Your task to perform on an android device: uninstall "Google Calendar" Image 0: 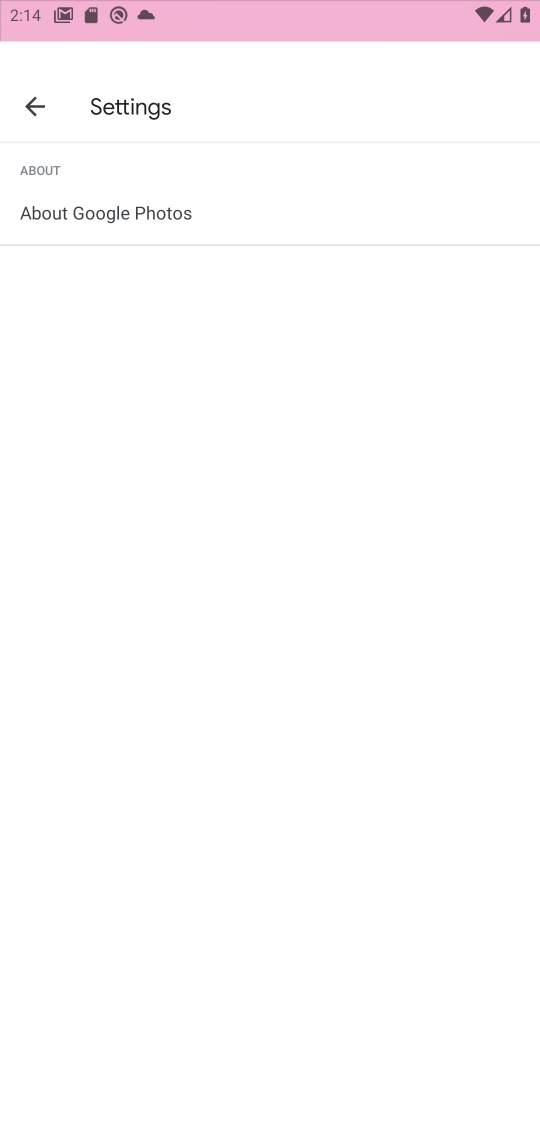
Step 0: press home button
Your task to perform on an android device: uninstall "Google Calendar" Image 1: 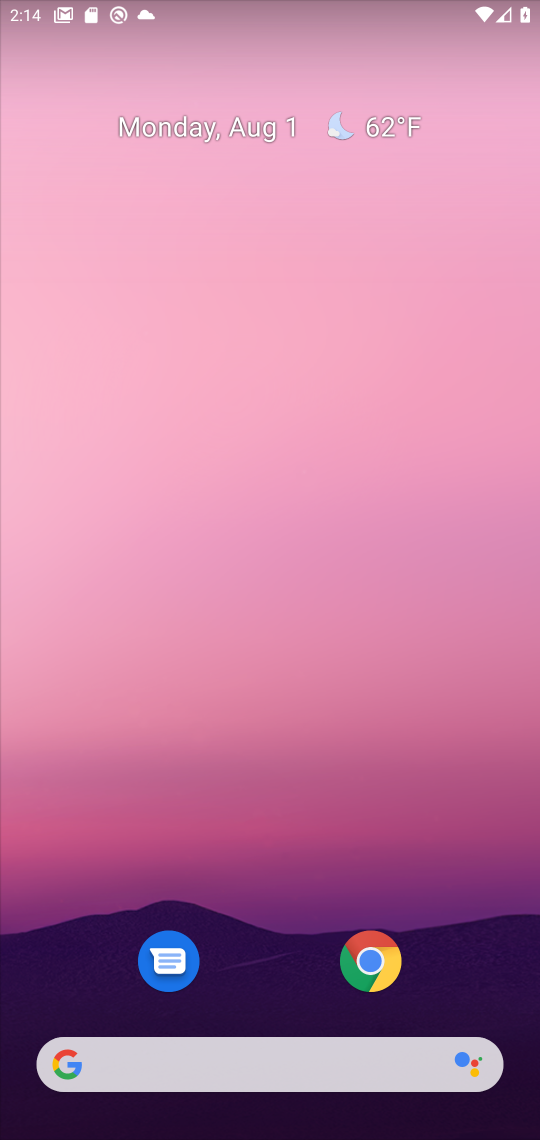
Step 1: drag from (293, 903) to (313, 91)
Your task to perform on an android device: uninstall "Google Calendar" Image 2: 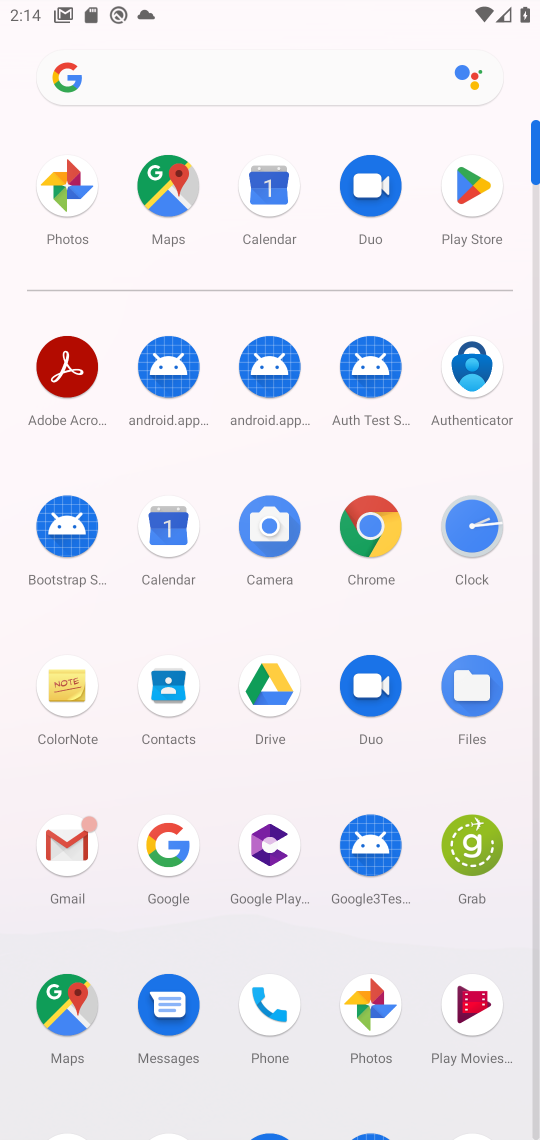
Step 2: click (477, 182)
Your task to perform on an android device: uninstall "Google Calendar" Image 3: 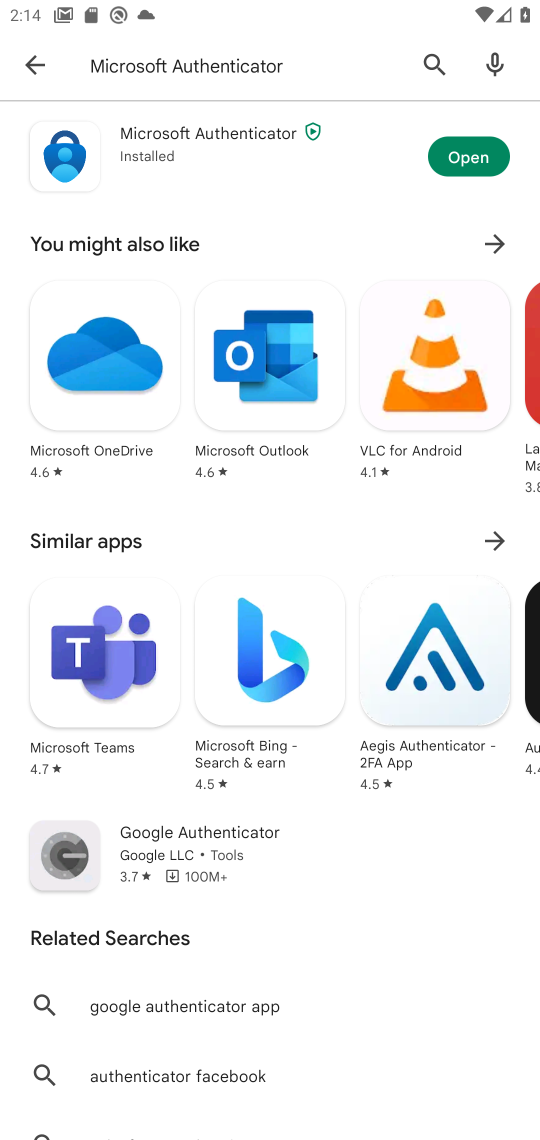
Step 3: click (388, 66)
Your task to perform on an android device: uninstall "Google Calendar" Image 4: 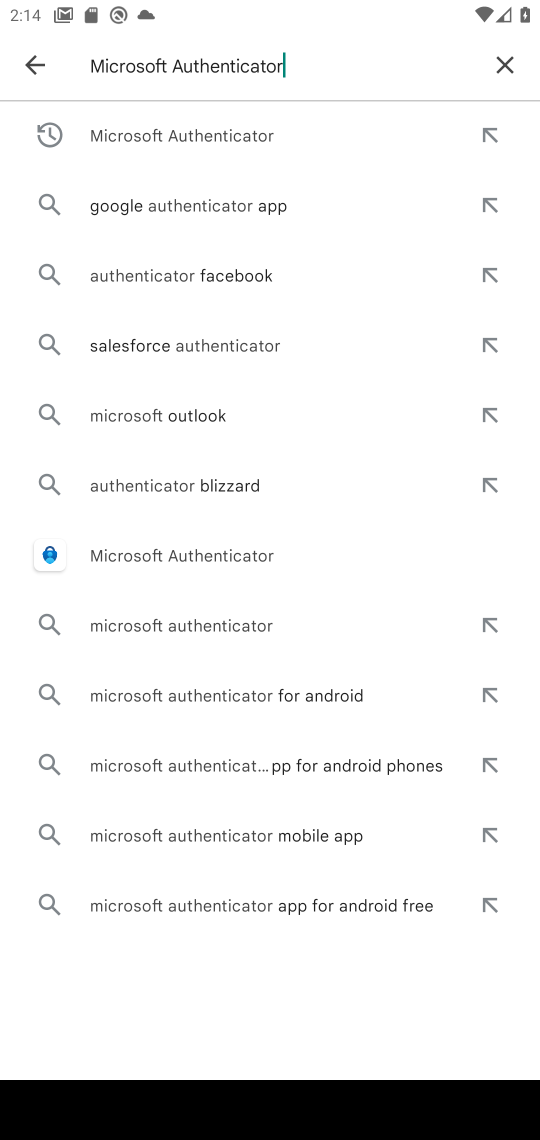
Step 4: click (505, 60)
Your task to perform on an android device: uninstall "Google Calendar" Image 5: 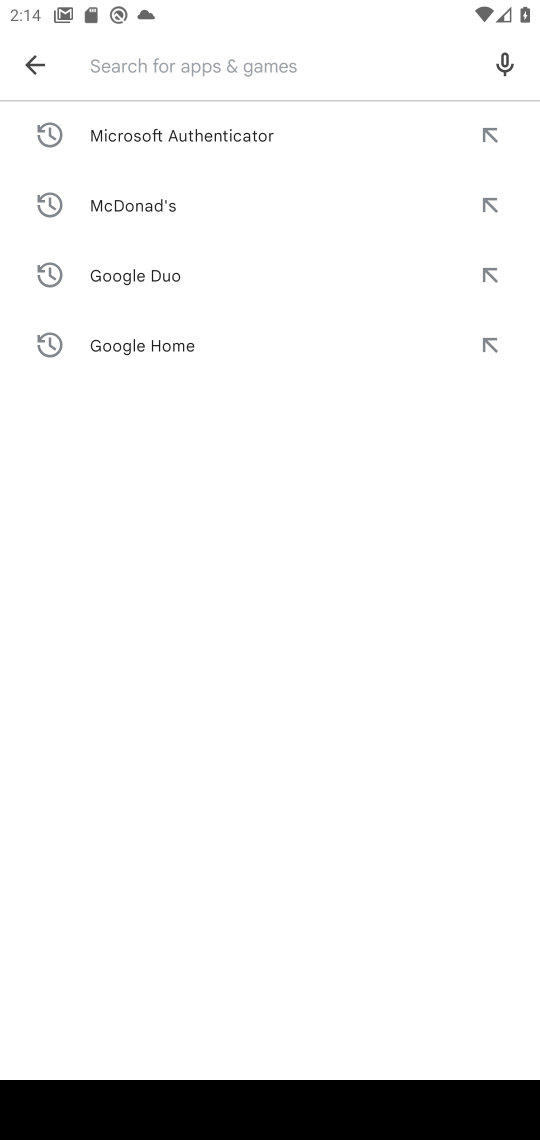
Step 5: type "Google Calendar"
Your task to perform on an android device: uninstall "Google Calendar" Image 6: 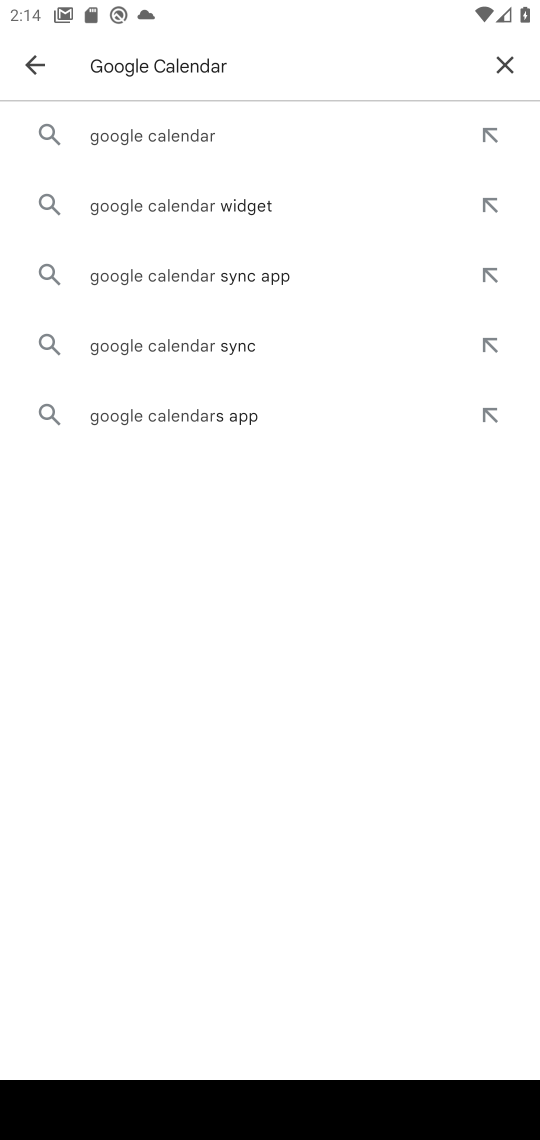
Step 6: press enter
Your task to perform on an android device: uninstall "Google Calendar" Image 7: 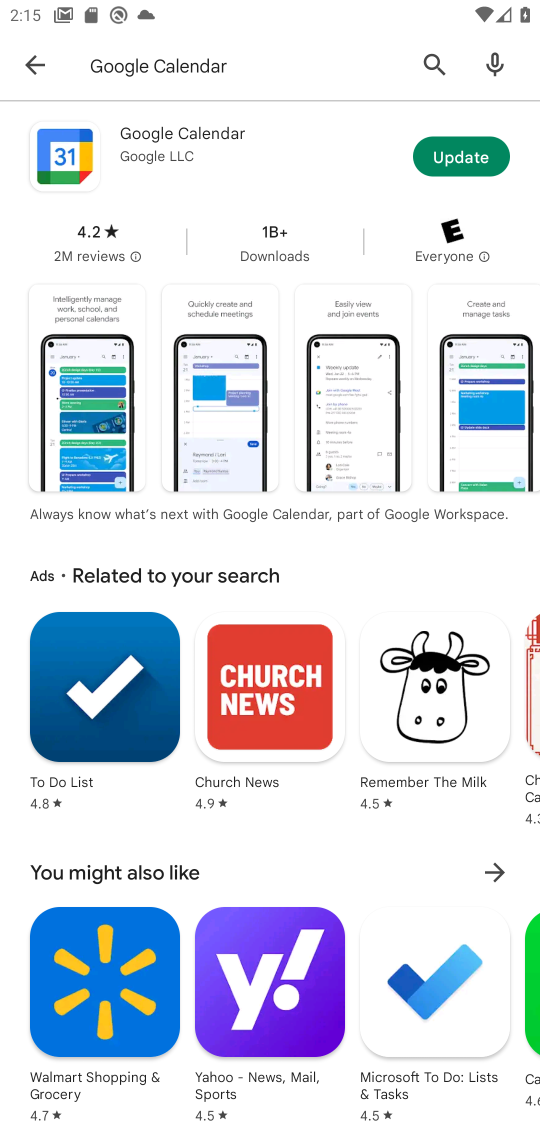
Step 7: click (151, 158)
Your task to perform on an android device: uninstall "Google Calendar" Image 8: 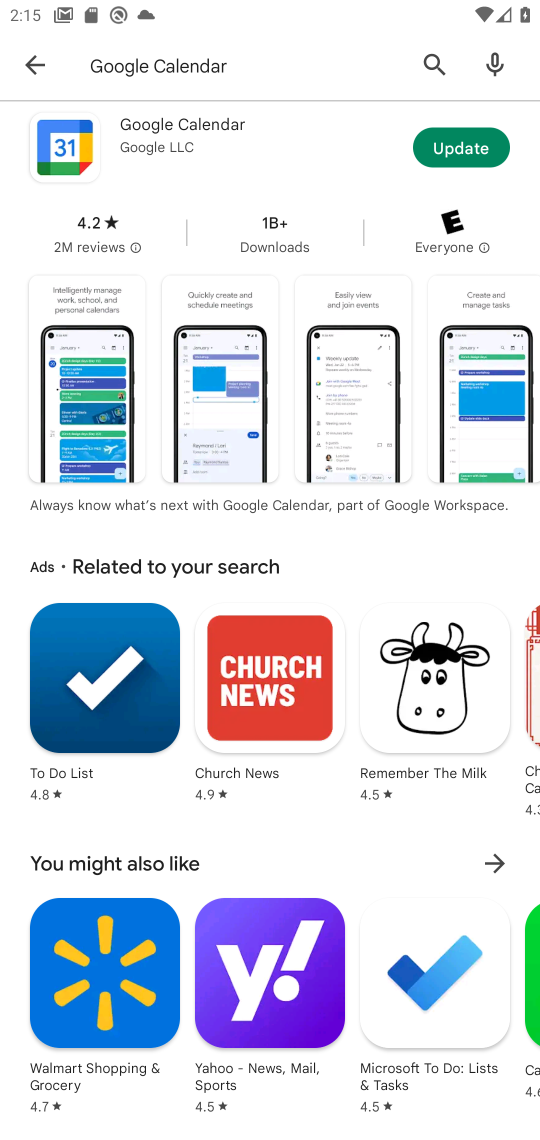
Step 8: click (202, 105)
Your task to perform on an android device: uninstall "Google Calendar" Image 9: 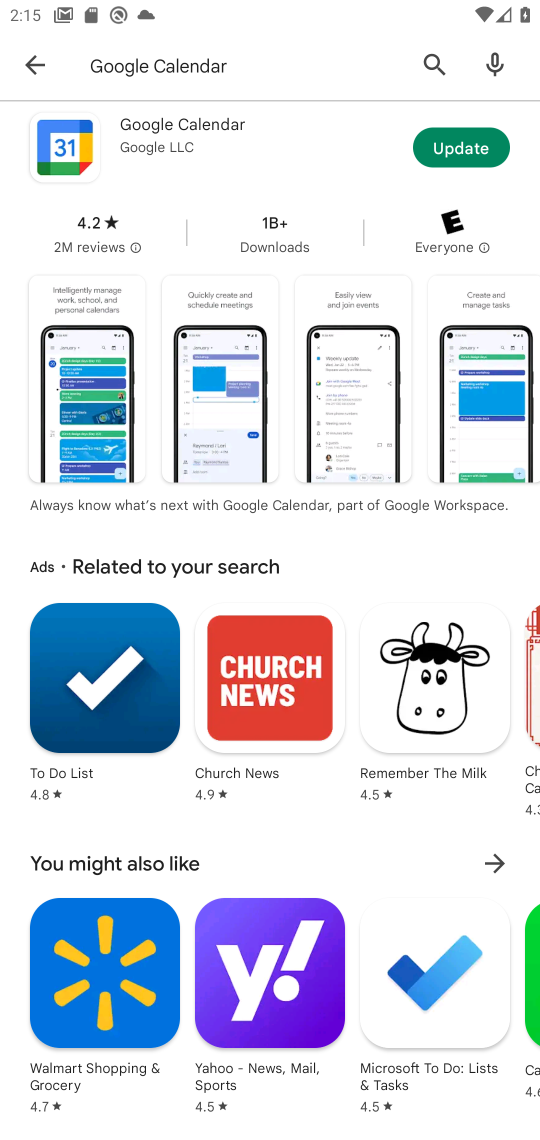
Step 9: click (194, 130)
Your task to perform on an android device: uninstall "Google Calendar" Image 10: 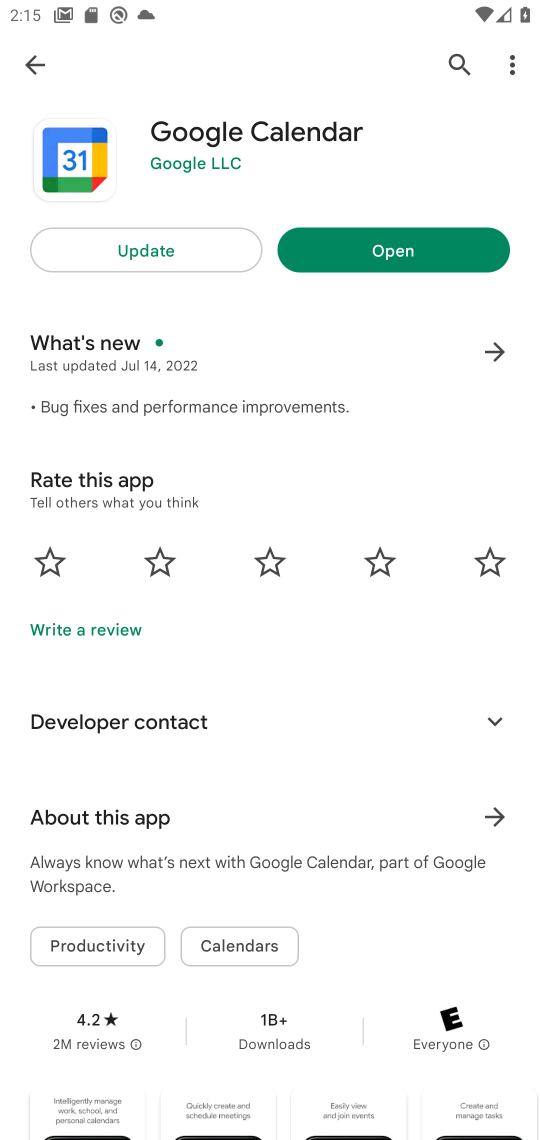
Step 10: task complete